Your task to perform on an android device: Add "razer blade" to the cart on ebay, then select checkout. Image 0: 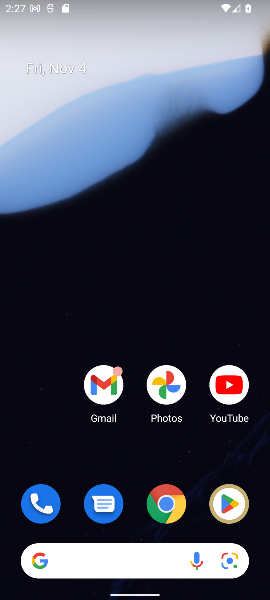
Step 0: click (168, 509)
Your task to perform on an android device: Add "razer blade" to the cart on ebay, then select checkout. Image 1: 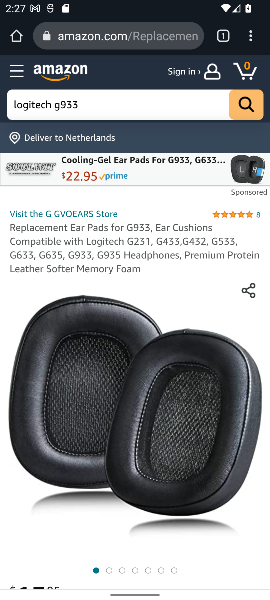
Step 1: click (130, 43)
Your task to perform on an android device: Add "razer blade" to the cart on ebay, then select checkout. Image 2: 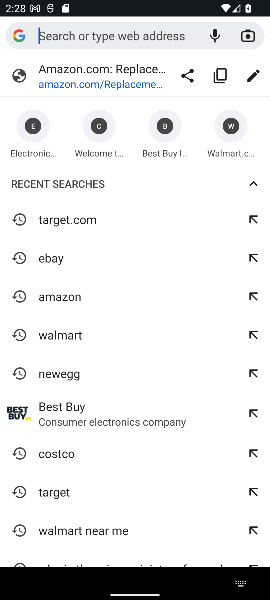
Step 2: click (57, 265)
Your task to perform on an android device: Add "razer blade" to the cart on ebay, then select checkout. Image 3: 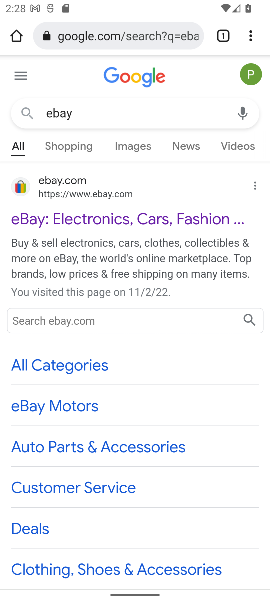
Step 3: click (69, 211)
Your task to perform on an android device: Add "razer blade" to the cart on ebay, then select checkout. Image 4: 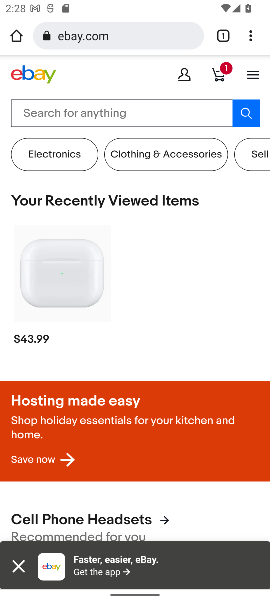
Step 4: click (64, 114)
Your task to perform on an android device: Add "razer blade" to the cart on ebay, then select checkout. Image 5: 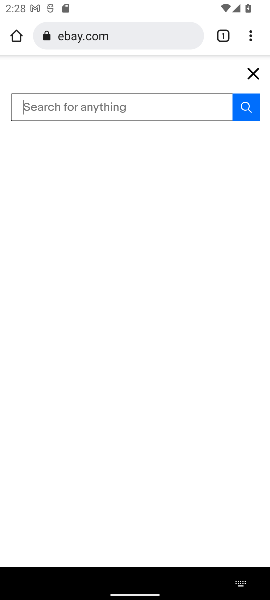
Step 5: type "razer blade"
Your task to perform on an android device: Add "razer blade" to the cart on ebay, then select checkout. Image 6: 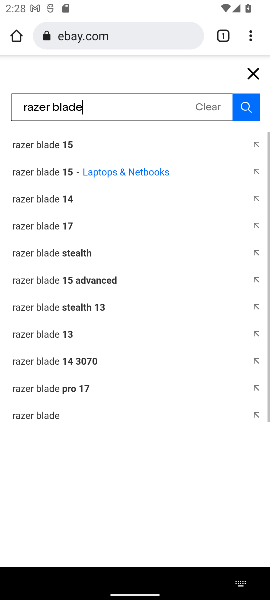
Step 6: click (249, 113)
Your task to perform on an android device: Add "razer blade" to the cart on ebay, then select checkout. Image 7: 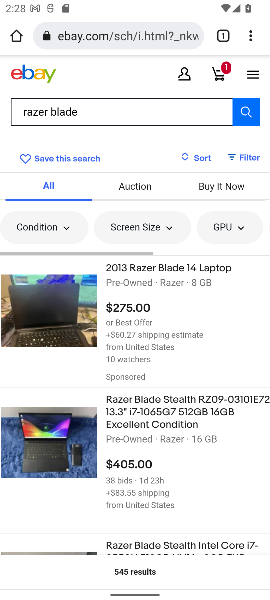
Step 7: click (47, 311)
Your task to perform on an android device: Add "razer blade" to the cart on ebay, then select checkout. Image 8: 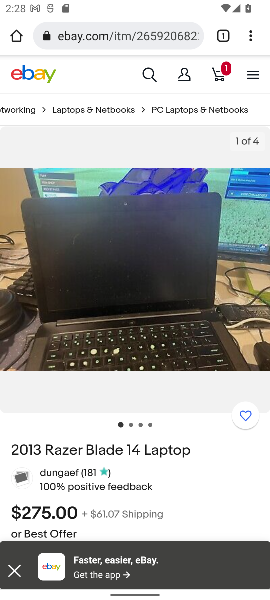
Step 8: drag from (129, 398) to (154, 160)
Your task to perform on an android device: Add "razer blade" to the cart on ebay, then select checkout. Image 9: 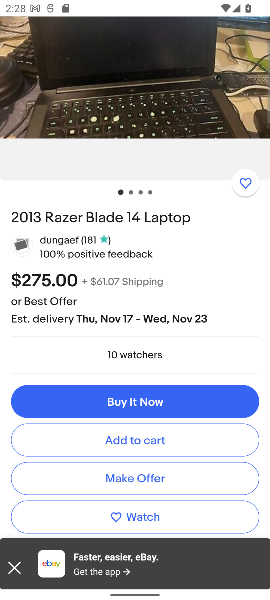
Step 9: click (149, 159)
Your task to perform on an android device: Add "razer blade" to the cart on ebay, then select checkout. Image 10: 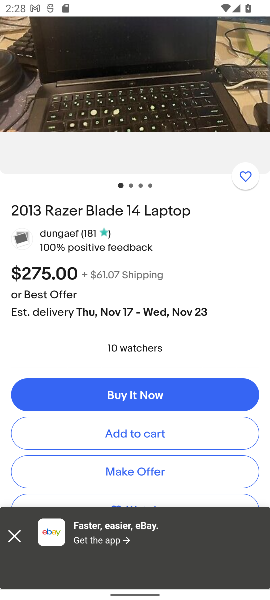
Step 10: drag from (151, 169) to (159, 82)
Your task to perform on an android device: Add "razer blade" to the cart on ebay, then select checkout. Image 11: 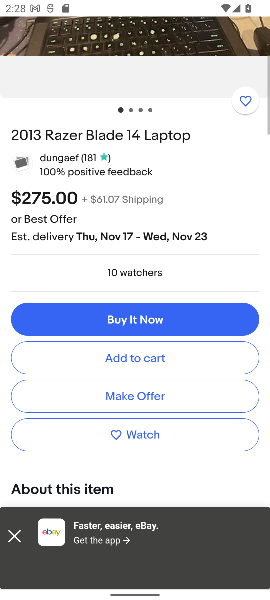
Step 11: drag from (130, 343) to (132, 92)
Your task to perform on an android device: Add "razer blade" to the cart on ebay, then select checkout. Image 12: 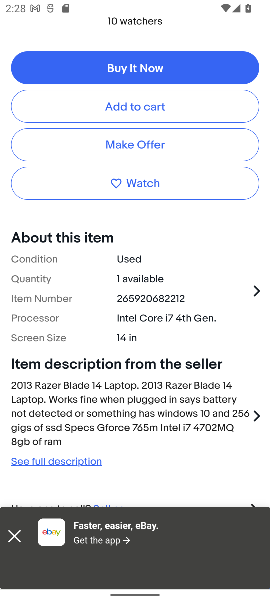
Step 12: click (122, 109)
Your task to perform on an android device: Add "razer blade" to the cart on ebay, then select checkout. Image 13: 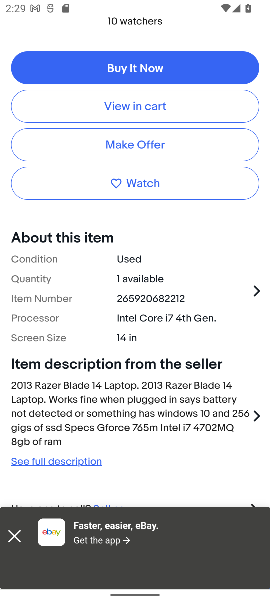
Step 13: click (122, 110)
Your task to perform on an android device: Add "razer blade" to the cart on ebay, then select checkout. Image 14: 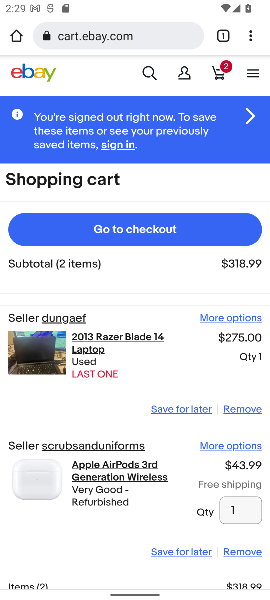
Step 14: click (84, 230)
Your task to perform on an android device: Add "razer blade" to the cart on ebay, then select checkout. Image 15: 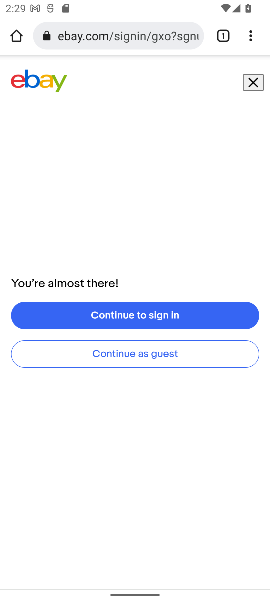
Step 15: task complete